Your task to perform on an android device: star an email in the gmail app Image 0: 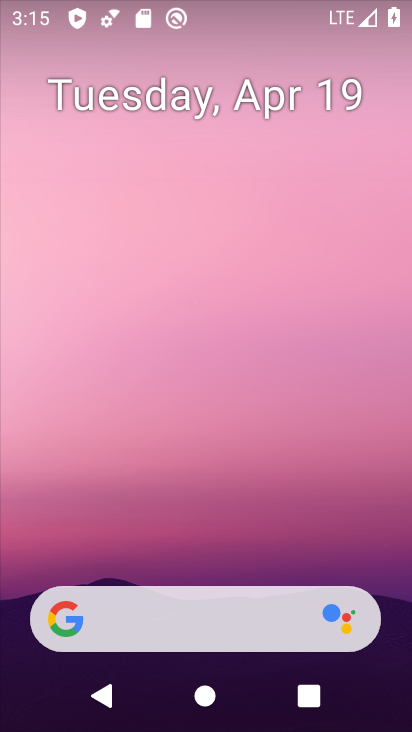
Step 0: drag from (260, 557) to (308, 51)
Your task to perform on an android device: star an email in the gmail app Image 1: 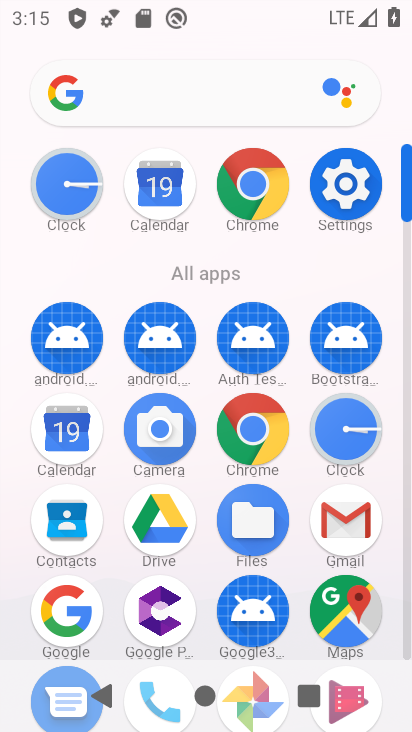
Step 1: click (344, 522)
Your task to perform on an android device: star an email in the gmail app Image 2: 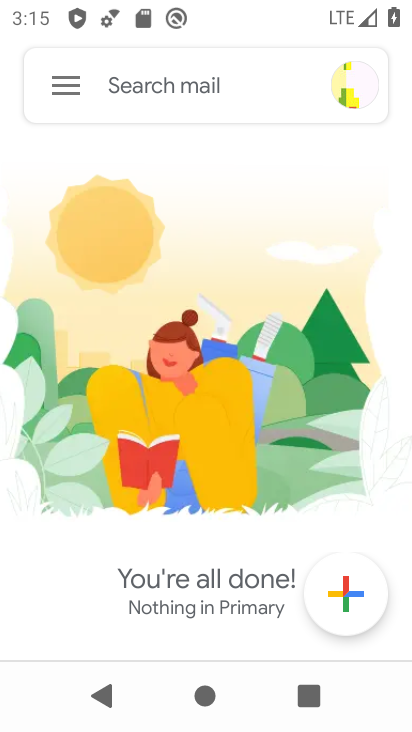
Step 2: click (68, 88)
Your task to perform on an android device: star an email in the gmail app Image 3: 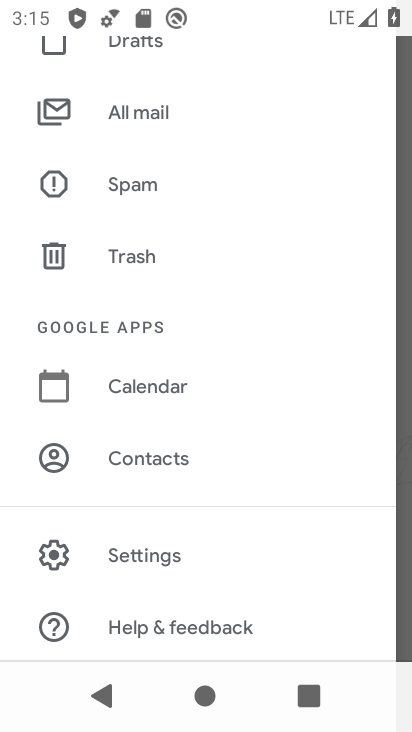
Step 3: drag from (179, 314) to (177, 450)
Your task to perform on an android device: star an email in the gmail app Image 4: 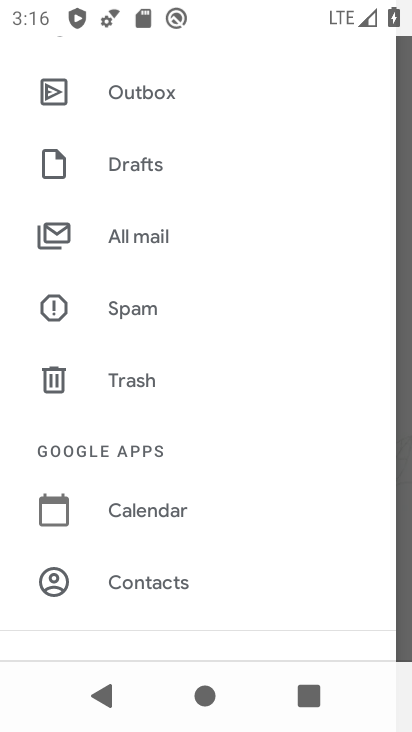
Step 4: drag from (141, 342) to (152, 394)
Your task to perform on an android device: star an email in the gmail app Image 5: 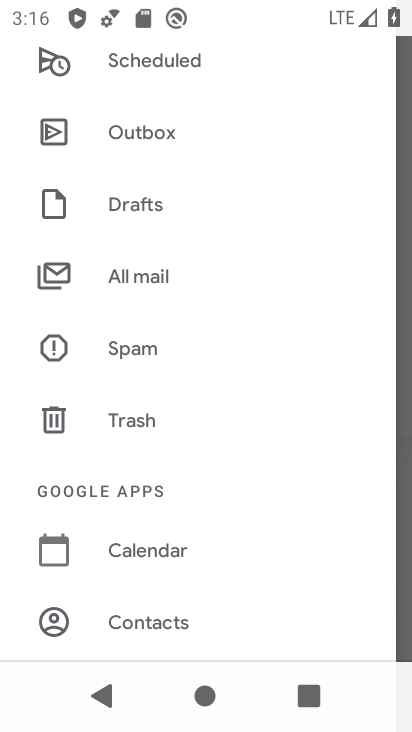
Step 5: drag from (135, 302) to (143, 363)
Your task to perform on an android device: star an email in the gmail app Image 6: 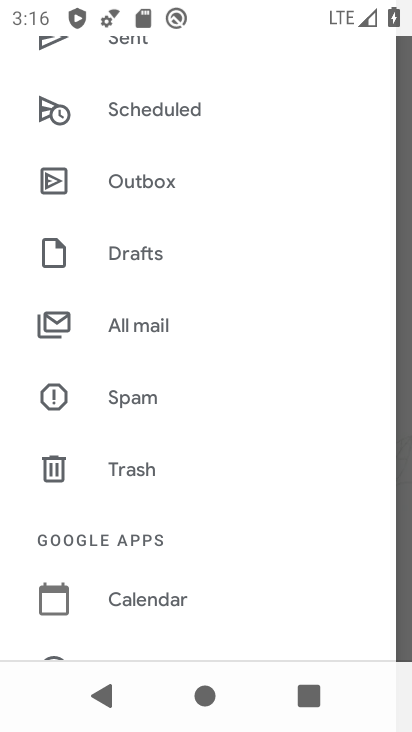
Step 6: drag from (115, 276) to (127, 331)
Your task to perform on an android device: star an email in the gmail app Image 7: 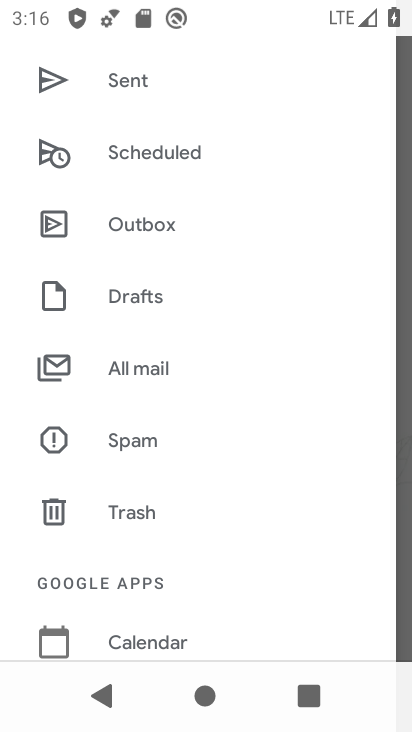
Step 7: drag from (119, 248) to (129, 294)
Your task to perform on an android device: star an email in the gmail app Image 8: 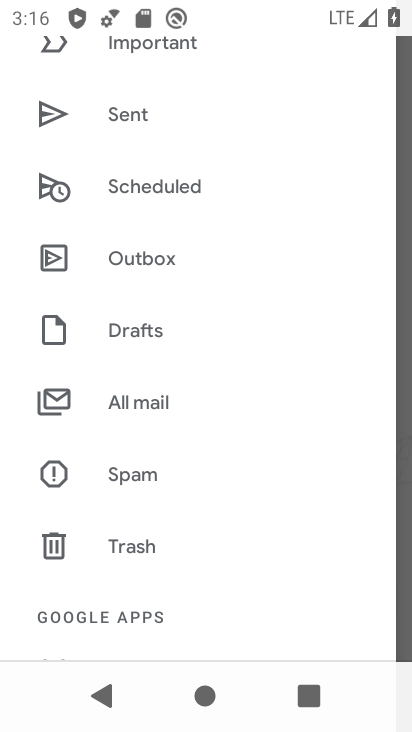
Step 8: drag from (143, 229) to (153, 302)
Your task to perform on an android device: star an email in the gmail app Image 9: 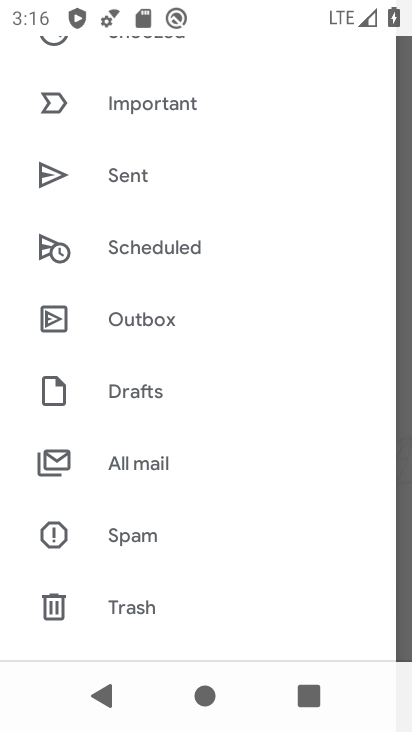
Step 9: drag from (172, 139) to (159, 218)
Your task to perform on an android device: star an email in the gmail app Image 10: 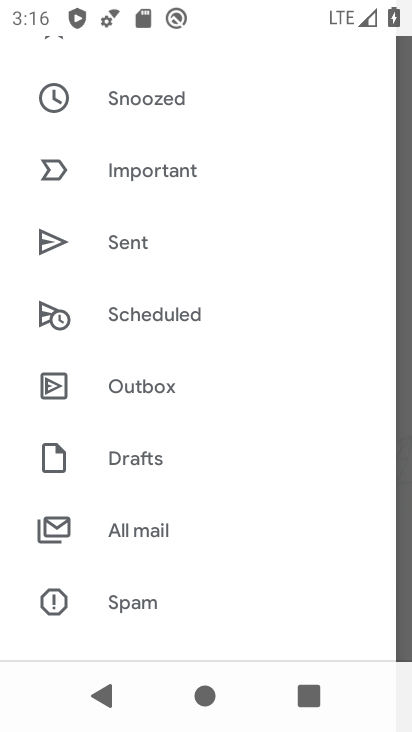
Step 10: drag from (159, 218) to (174, 320)
Your task to perform on an android device: star an email in the gmail app Image 11: 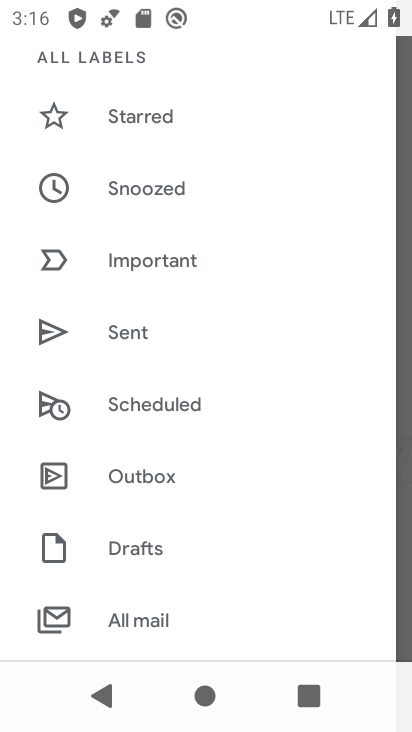
Step 11: drag from (146, 231) to (142, 312)
Your task to perform on an android device: star an email in the gmail app Image 12: 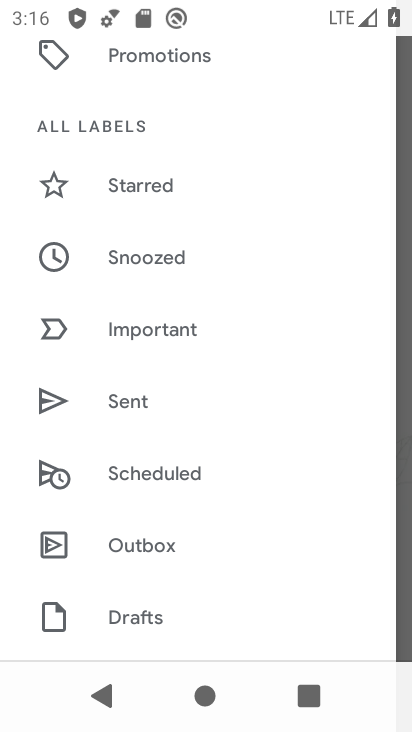
Step 12: click (146, 198)
Your task to perform on an android device: star an email in the gmail app Image 13: 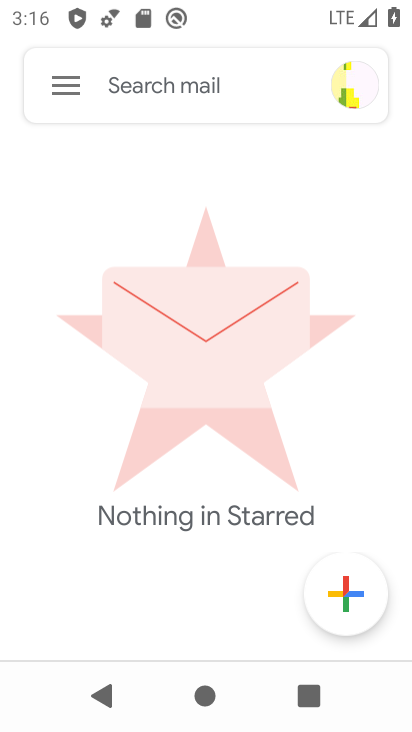
Step 13: task complete